Your task to perform on an android device: toggle pop-ups in chrome Image 0: 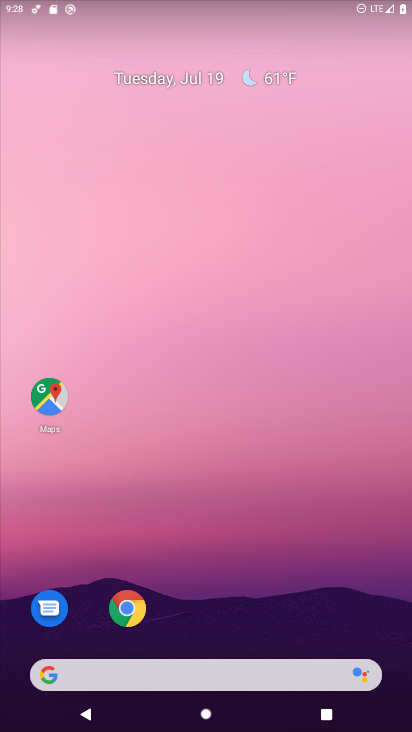
Step 0: click (121, 612)
Your task to perform on an android device: toggle pop-ups in chrome Image 1: 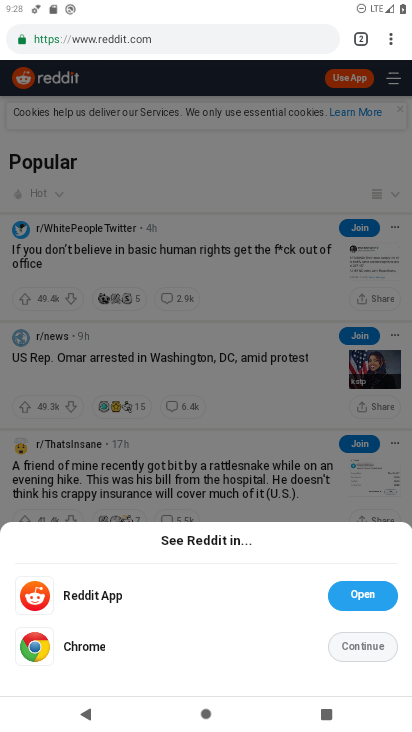
Step 1: click (393, 29)
Your task to perform on an android device: toggle pop-ups in chrome Image 2: 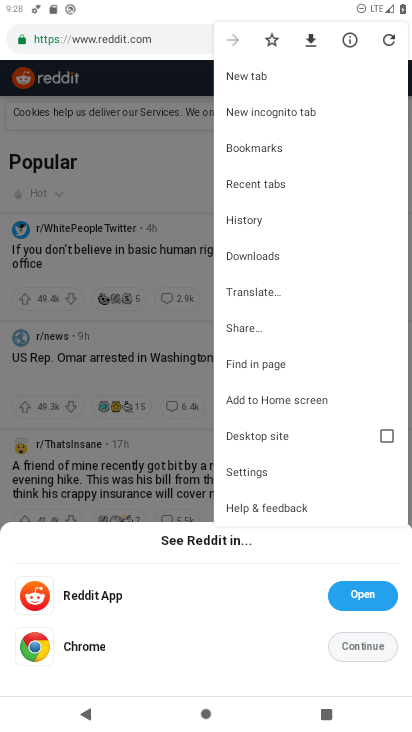
Step 2: click (250, 463)
Your task to perform on an android device: toggle pop-ups in chrome Image 3: 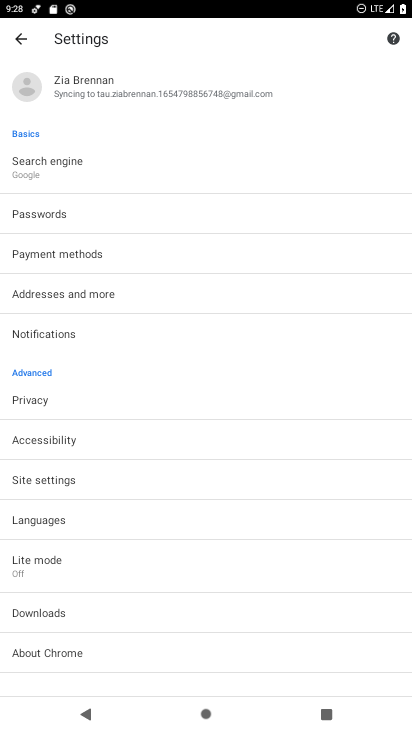
Step 3: click (41, 476)
Your task to perform on an android device: toggle pop-ups in chrome Image 4: 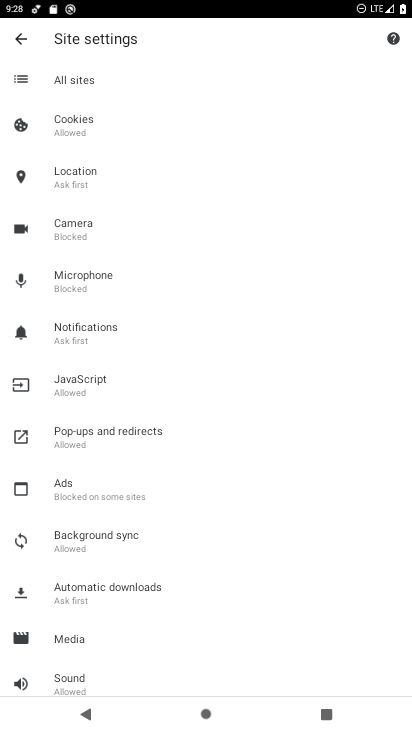
Step 4: click (105, 428)
Your task to perform on an android device: toggle pop-ups in chrome Image 5: 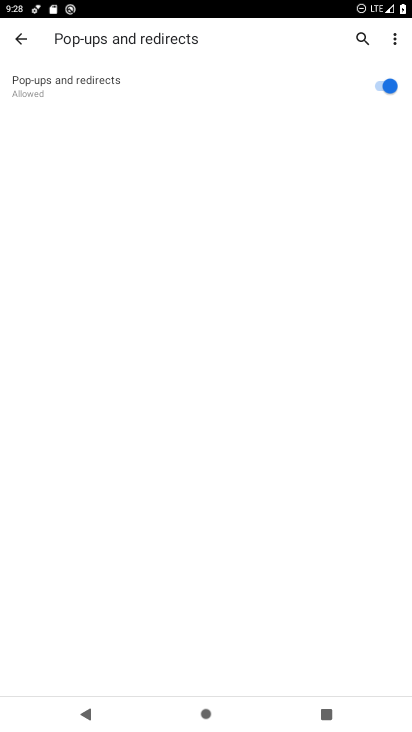
Step 5: click (392, 86)
Your task to perform on an android device: toggle pop-ups in chrome Image 6: 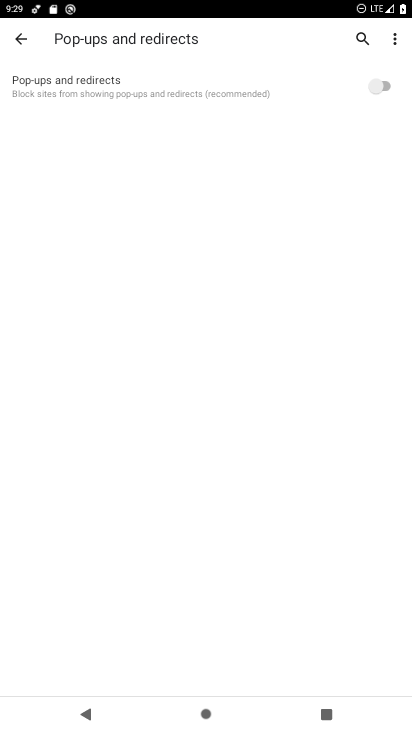
Step 6: task complete